Your task to perform on an android device: open app "Microsoft Excel" Image 0: 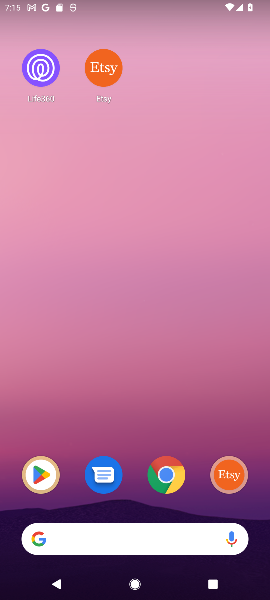
Step 0: press back button
Your task to perform on an android device: open app "Microsoft Excel" Image 1: 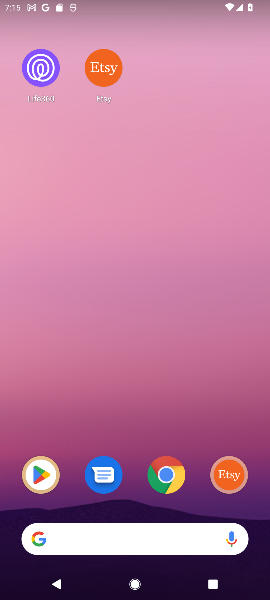
Step 1: drag from (132, 483) to (121, 76)
Your task to perform on an android device: open app "Microsoft Excel" Image 2: 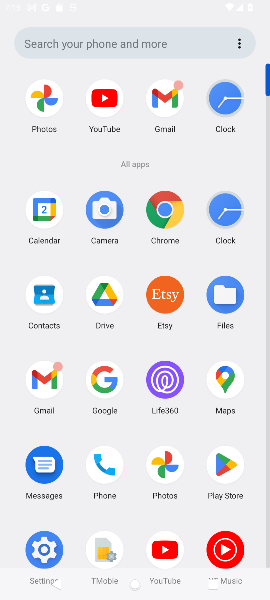
Step 2: drag from (137, 429) to (138, 152)
Your task to perform on an android device: open app "Microsoft Excel" Image 3: 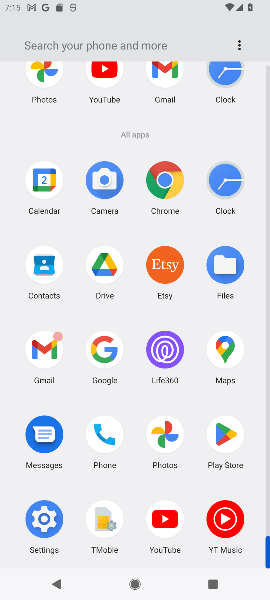
Step 3: click (223, 435)
Your task to perform on an android device: open app "Microsoft Excel" Image 4: 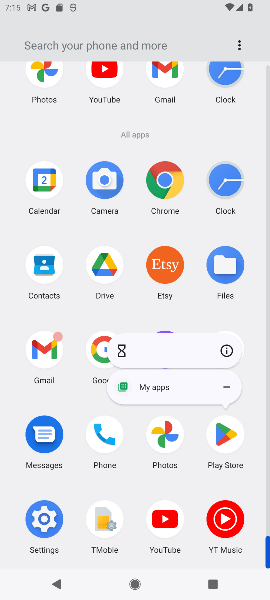
Step 4: click (220, 433)
Your task to perform on an android device: open app "Microsoft Excel" Image 5: 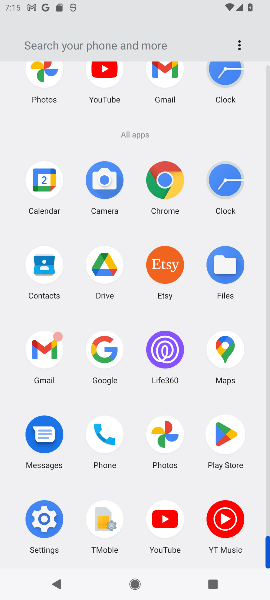
Step 5: click (220, 432)
Your task to perform on an android device: open app "Microsoft Excel" Image 6: 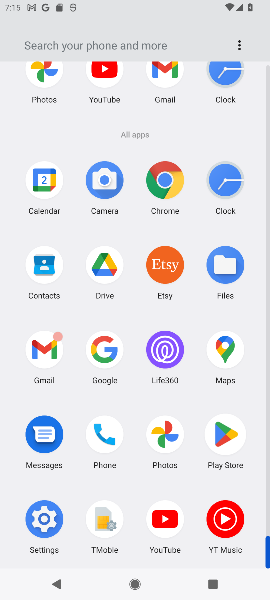
Step 6: click (219, 429)
Your task to perform on an android device: open app "Microsoft Excel" Image 7: 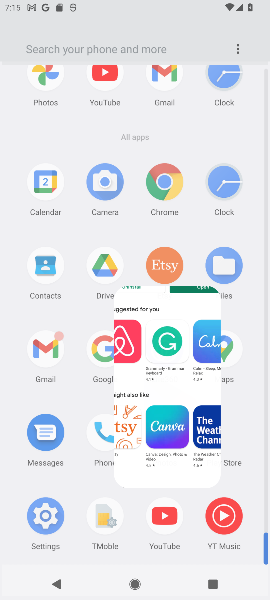
Step 7: click (219, 429)
Your task to perform on an android device: open app "Microsoft Excel" Image 8: 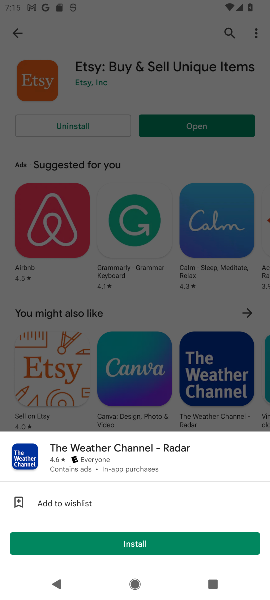
Step 8: click (15, 34)
Your task to perform on an android device: open app "Microsoft Excel" Image 9: 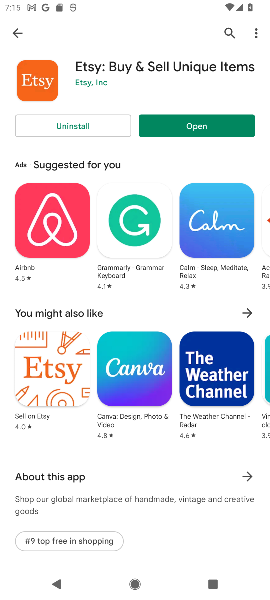
Step 9: click (16, 37)
Your task to perform on an android device: open app "Microsoft Excel" Image 10: 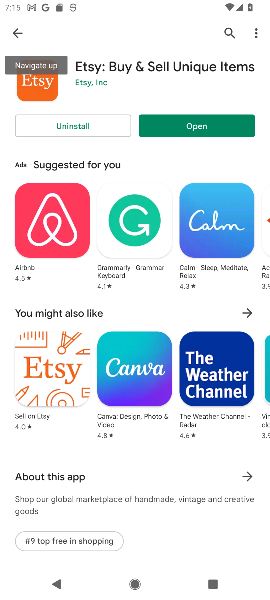
Step 10: click (17, 33)
Your task to perform on an android device: open app "Microsoft Excel" Image 11: 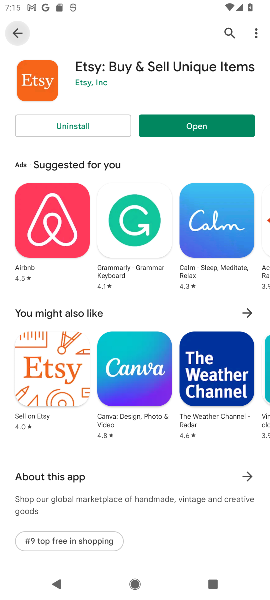
Step 11: click (17, 33)
Your task to perform on an android device: open app "Microsoft Excel" Image 12: 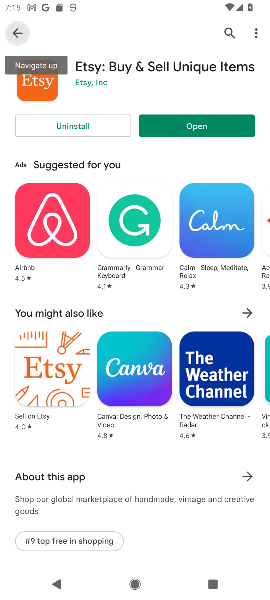
Step 12: click (17, 33)
Your task to perform on an android device: open app "Microsoft Excel" Image 13: 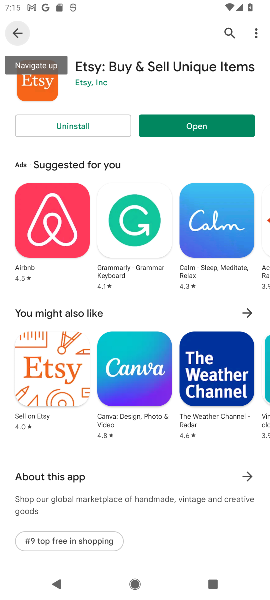
Step 13: click (17, 33)
Your task to perform on an android device: open app "Microsoft Excel" Image 14: 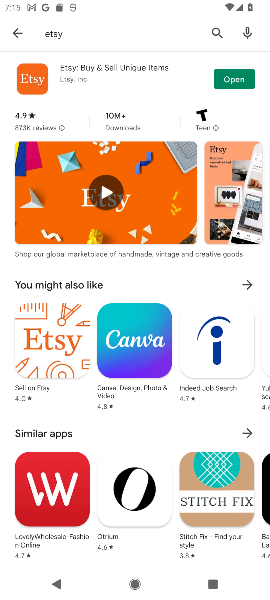
Step 14: click (17, 33)
Your task to perform on an android device: open app "Microsoft Excel" Image 15: 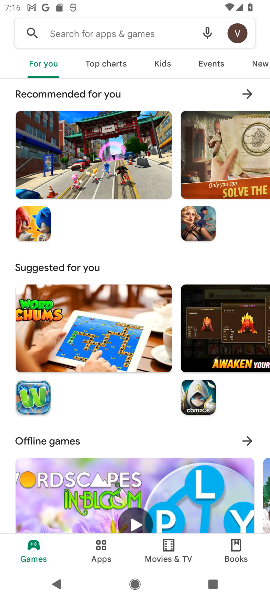
Step 15: click (62, 34)
Your task to perform on an android device: open app "Microsoft Excel" Image 16: 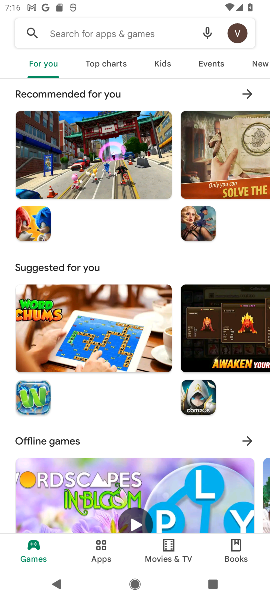
Step 16: click (62, 34)
Your task to perform on an android device: open app "Microsoft Excel" Image 17: 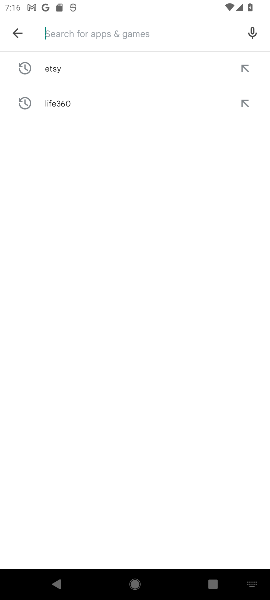
Step 17: click (62, 34)
Your task to perform on an android device: open app "Microsoft Excel" Image 18: 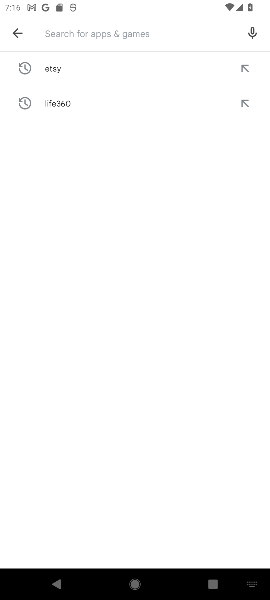
Step 18: click (62, 34)
Your task to perform on an android device: open app "Microsoft Excel" Image 19: 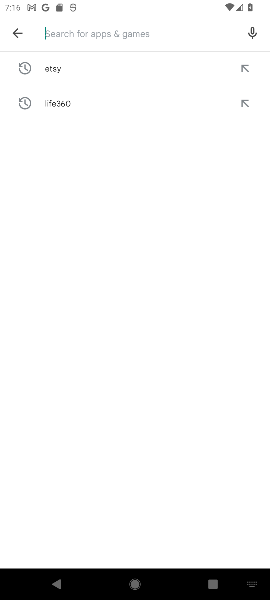
Step 19: type "microsoft excel"
Your task to perform on an android device: open app "Microsoft Excel" Image 20: 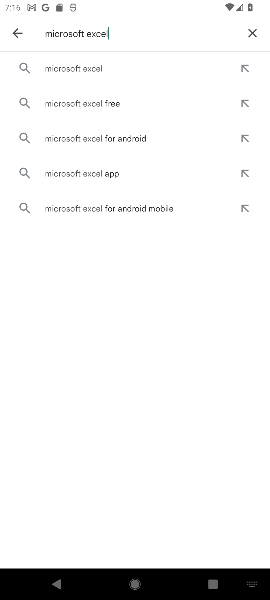
Step 20: click (75, 59)
Your task to perform on an android device: open app "Microsoft Excel" Image 21: 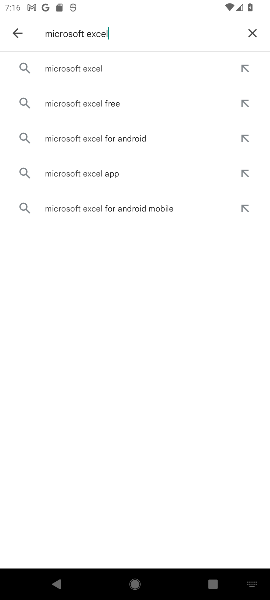
Step 21: click (75, 59)
Your task to perform on an android device: open app "Microsoft Excel" Image 22: 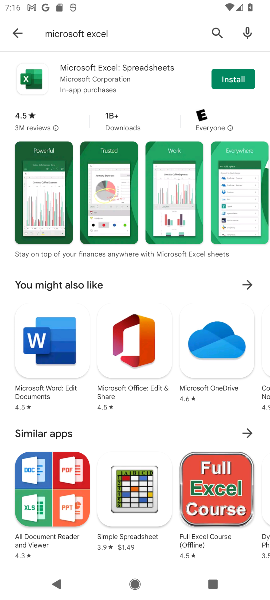
Step 22: click (230, 80)
Your task to perform on an android device: open app "Microsoft Excel" Image 23: 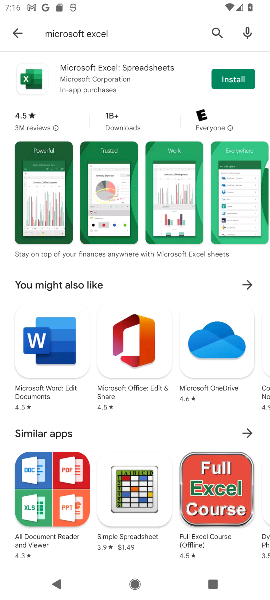
Step 23: click (229, 79)
Your task to perform on an android device: open app "Microsoft Excel" Image 24: 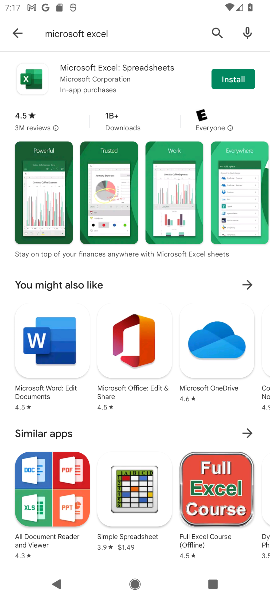
Step 24: click (241, 78)
Your task to perform on an android device: open app "Microsoft Excel" Image 25: 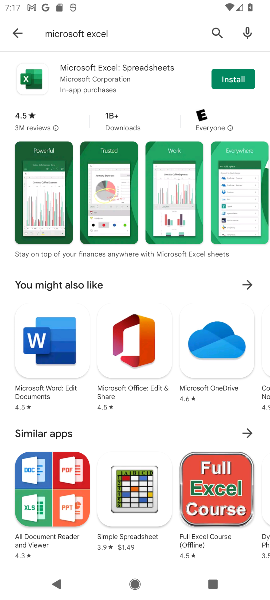
Step 25: click (240, 79)
Your task to perform on an android device: open app "Microsoft Excel" Image 26: 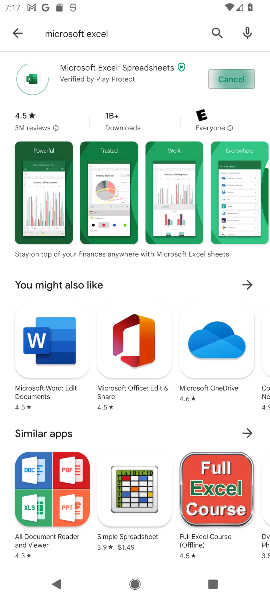
Step 26: click (239, 80)
Your task to perform on an android device: open app "Microsoft Excel" Image 27: 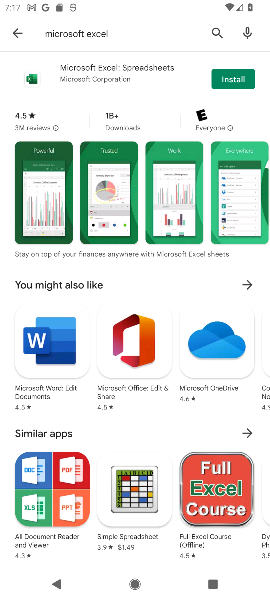
Step 27: click (239, 80)
Your task to perform on an android device: open app "Microsoft Excel" Image 28: 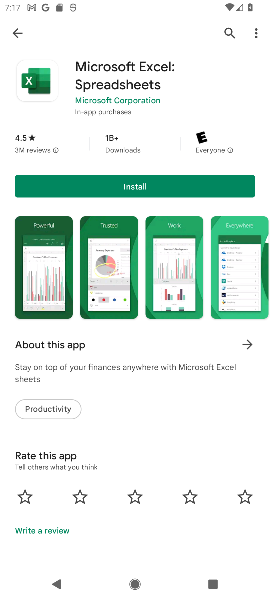
Step 28: click (134, 191)
Your task to perform on an android device: open app "Microsoft Excel" Image 29: 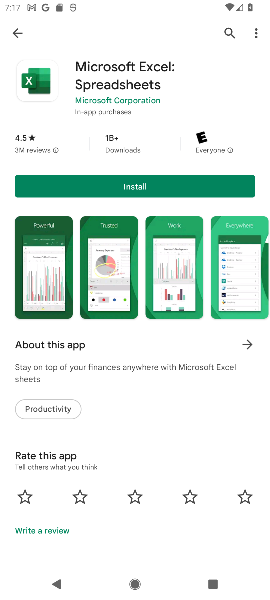
Step 29: click (136, 189)
Your task to perform on an android device: open app "Microsoft Excel" Image 30: 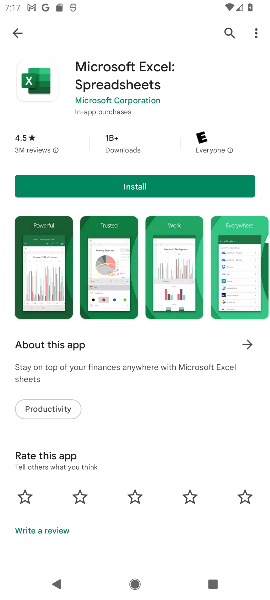
Step 30: click (141, 184)
Your task to perform on an android device: open app "Microsoft Excel" Image 31: 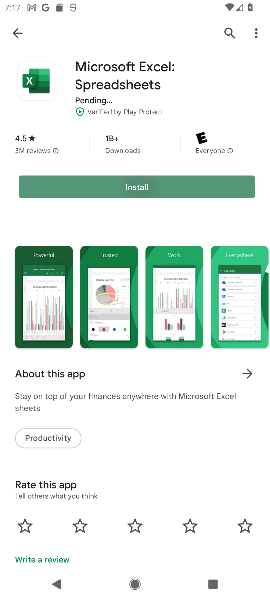
Step 31: click (144, 183)
Your task to perform on an android device: open app "Microsoft Excel" Image 32: 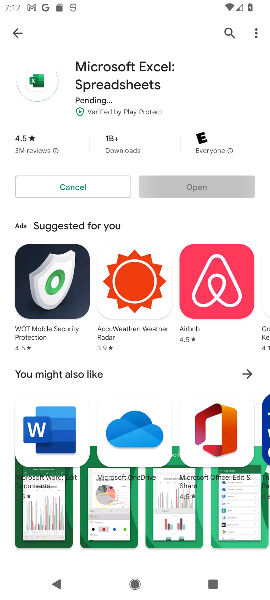
Step 32: click (144, 183)
Your task to perform on an android device: open app "Microsoft Excel" Image 33: 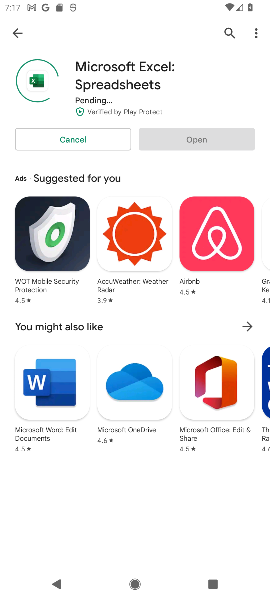
Step 33: click (144, 185)
Your task to perform on an android device: open app "Microsoft Excel" Image 34: 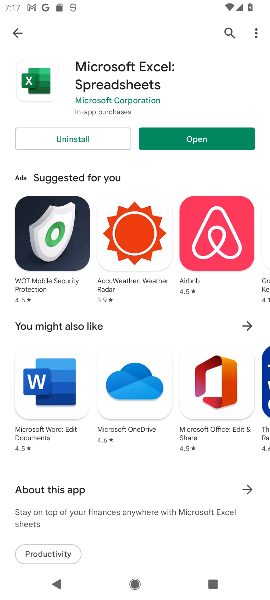
Step 34: click (190, 135)
Your task to perform on an android device: open app "Microsoft Excel" Image 35: 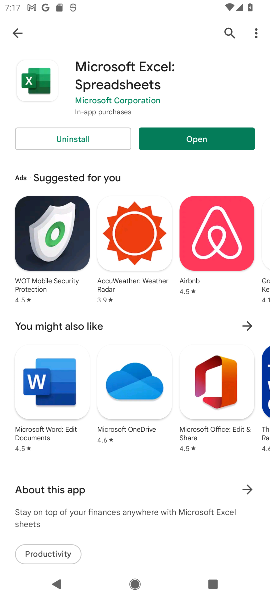
Step 35: click (191, 135)
Your task to perform on an android device: open app "Microsoft Excel" Image 36: 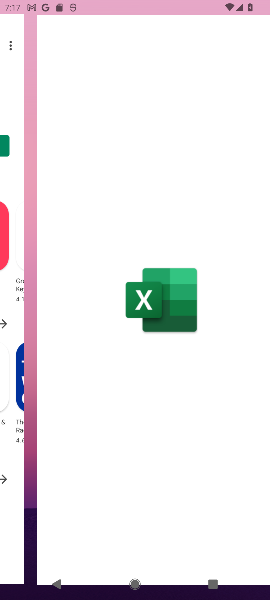
Step 36: click (198, 137)
Your task to perform on an android device: open app "Microsoft Excel" Image 37: 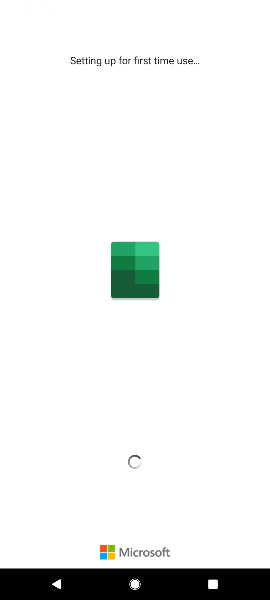
Step 37: task complete